Your task to perform on an android device: see sites visited before in the chrome app Image 0: 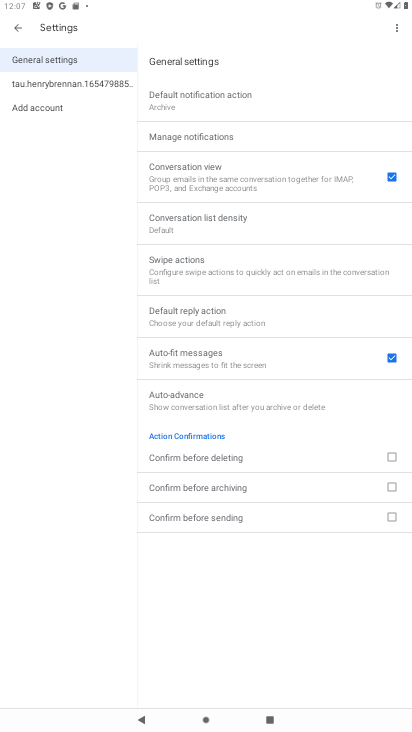
Step 0: press home button
Your task to perform on an android device: see sites visited before in the chrome app Image 1: 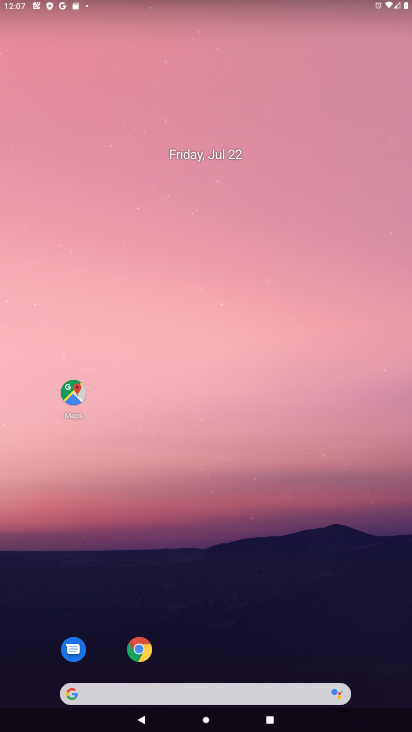
Step 1: drag from (289, 482) to (195, 116)
Your task to perform on an android device: see sites visited before in the chrome app Image 2: 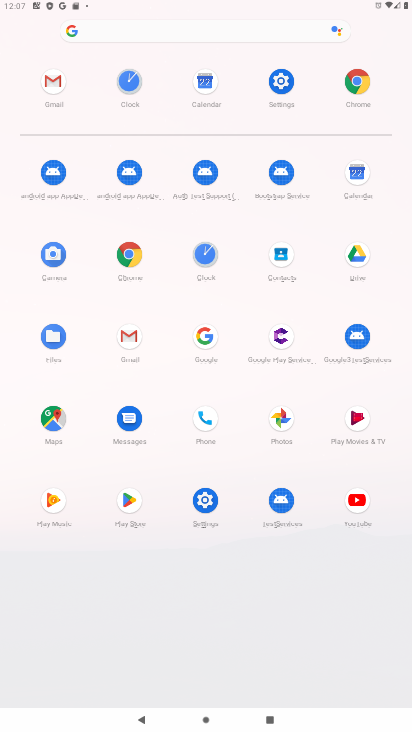
Step 2: click (127, 249)
Your task to perform on an android device: see sites visited before in the chrome app Image 3: 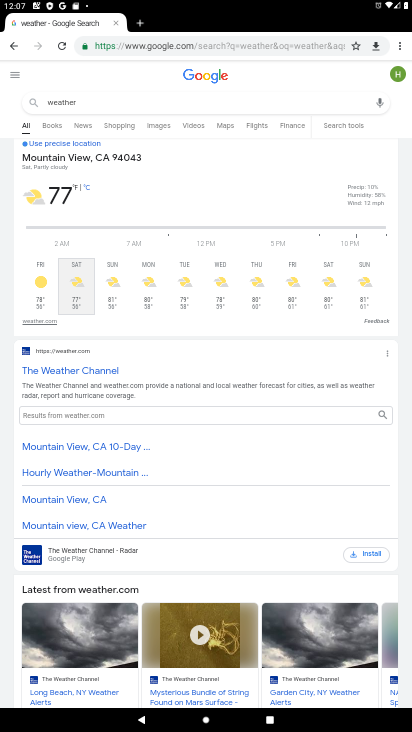
Step 3: task complete